Your task to perform on an android device: What's the weather today? Image 0: 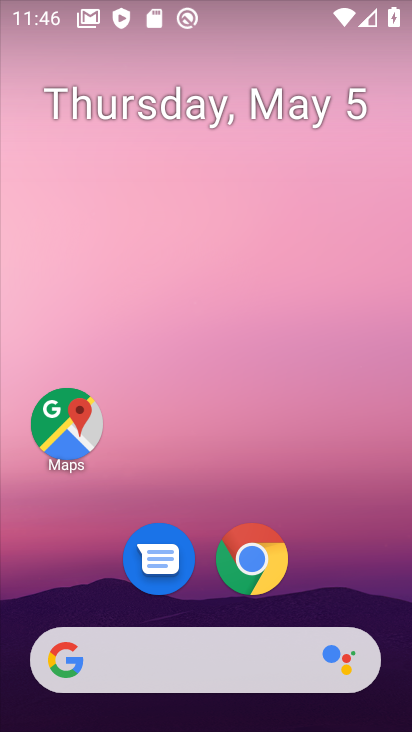
Step 0: drag from (301, 331) to (299, 11)
Your task to perform on an android device: What's the weather today? Image 1: 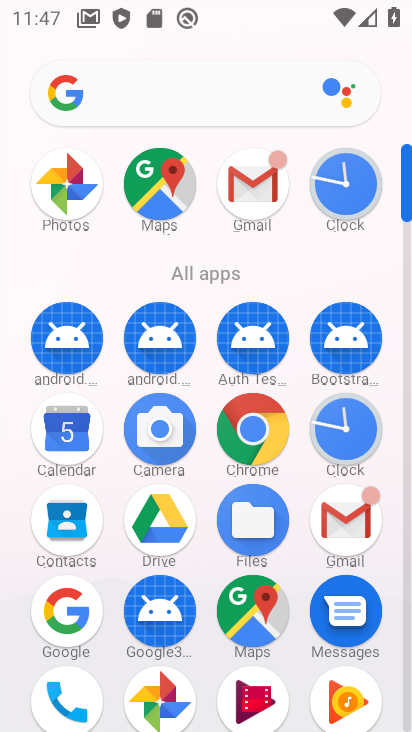
Step 1: click (157, 82)
Your task to perform on an android device: What's the weather today? Image 2: 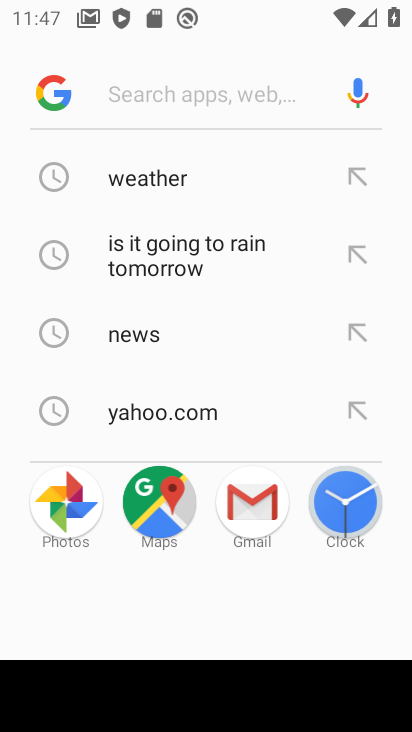
Step 2: type "what's the weather today"
Your task to perform on an android device: What's the weather today? Image 3: 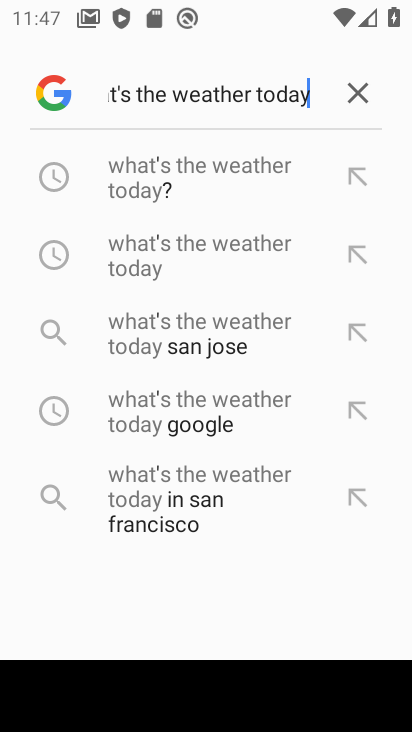
Step 3: click (273, 153)
Your task to perform on an android device: What's the weather today? Image 4: 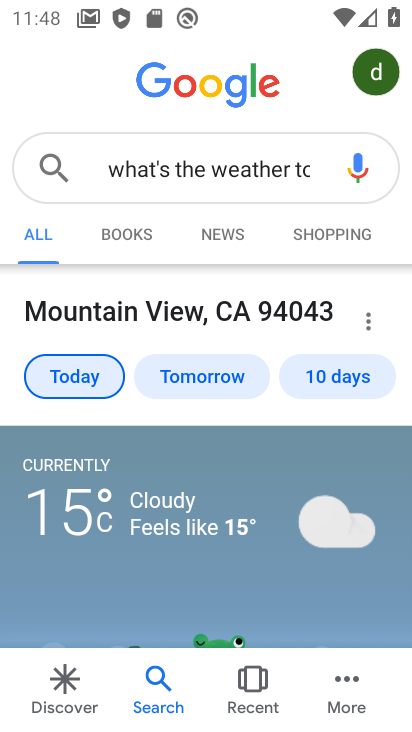
Step 4: task complete